Your task to perform on an android device: Turn off the flashlight Image 0: 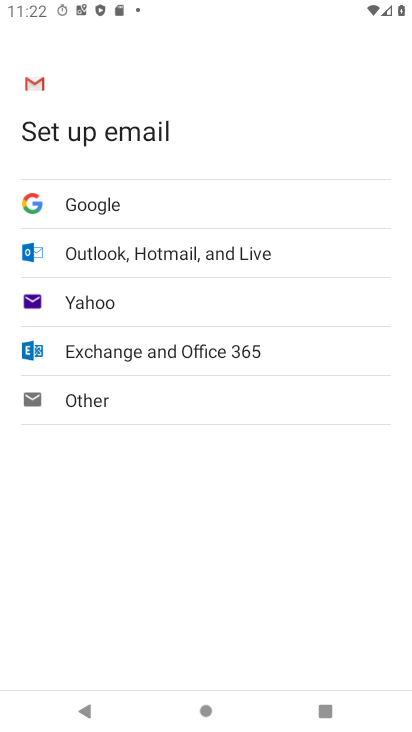
Step 0: press home button
Your task to perform on an android device: Turn off the flashlight Image 1: 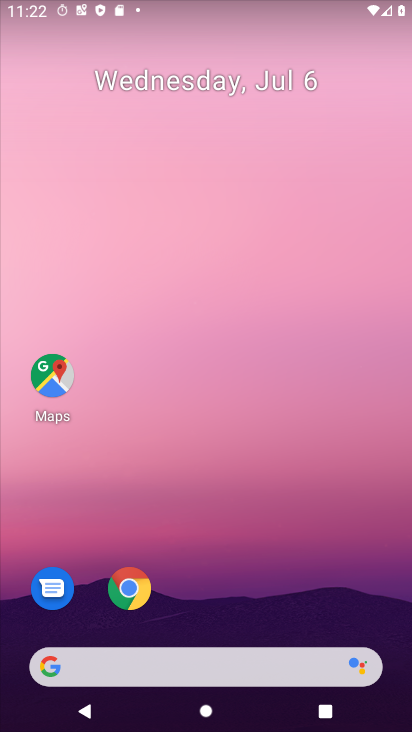
Step 1: drag from (237, 699) to (177, 104)
Your task to perform on an android device: Turn off the flashlight Image 2: 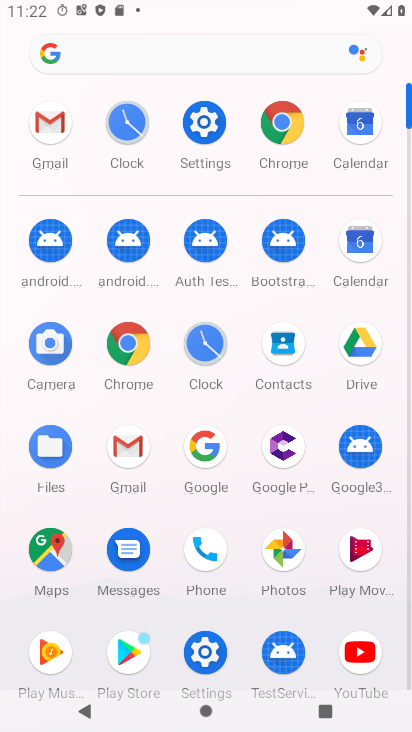
Step 2: click (198, 125)
Your task to perform on an android device: Turn off the flashlight Image 3: 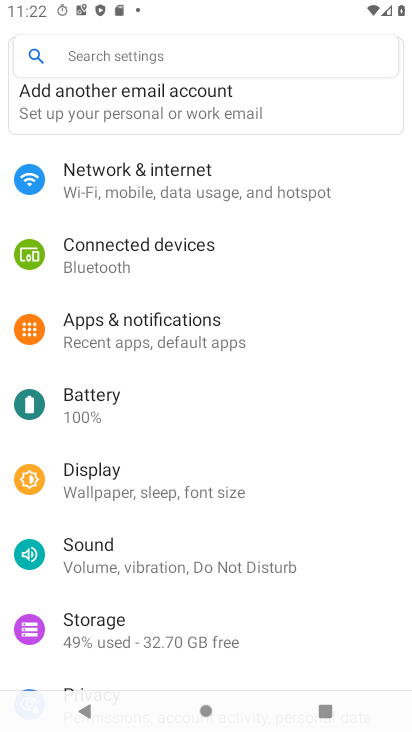
Step 3: drag from (180, 668) to (172, 165)
Your task to perform on an android device: Turn off the flashlight Image 4: 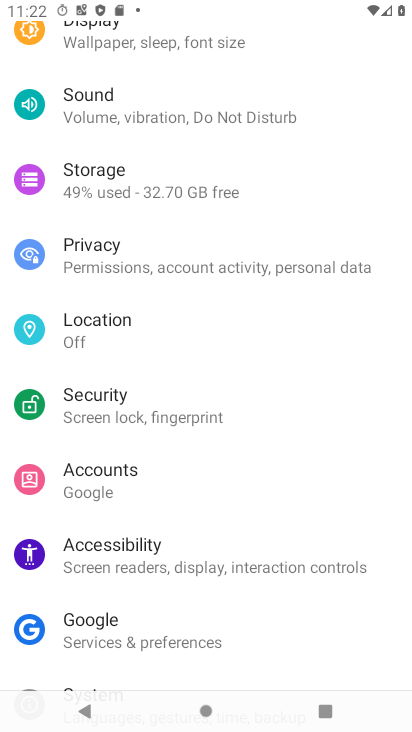
Step 4: drag from (229, 658) to (225, 532)
Your task to perform on an android device: Turn off the flashlight Image 5: 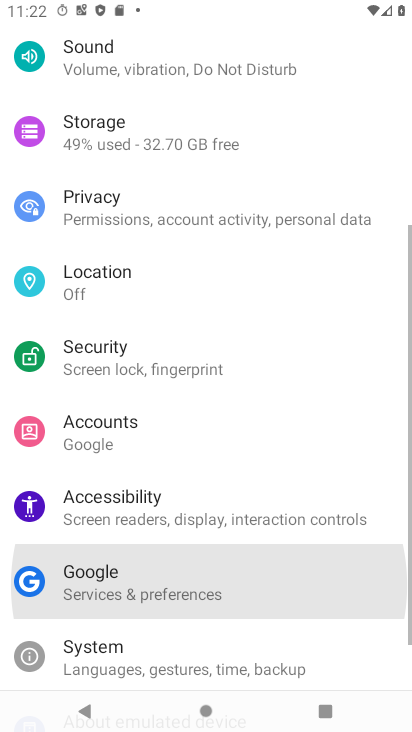
Step 5: click (218, 187)
Your task to perform on an android device: Turn off the flashlight Image 6: 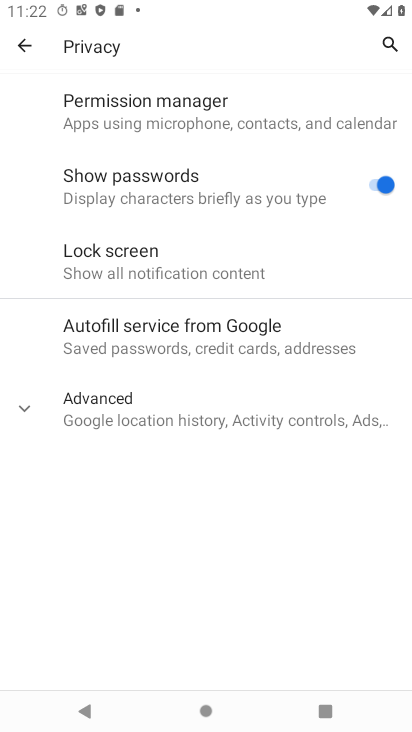
Step 6: click (22, 41)
Your task to perform on an android device: Turn off the flashlight Image 7: 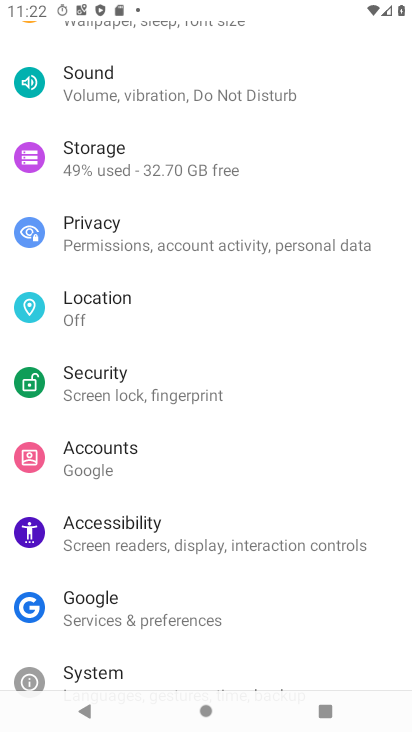
Step 7: click (279, 656)
Your task to perform on an android device: Turn off the flashlight Image 8: 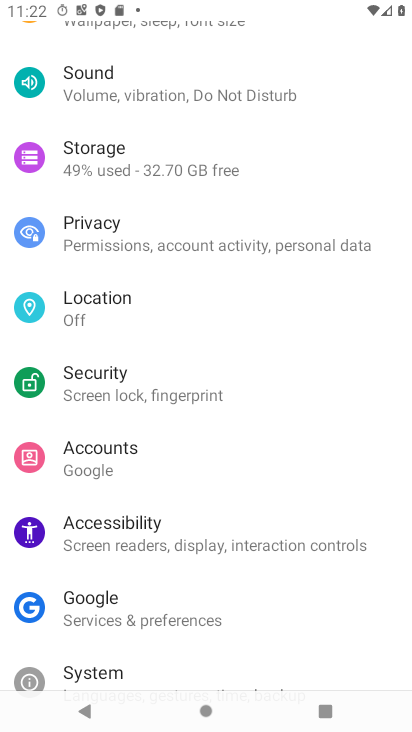
Step 8: click (244, 255)
Your task to perform on an android device: Turn off the flashlight Image 9: 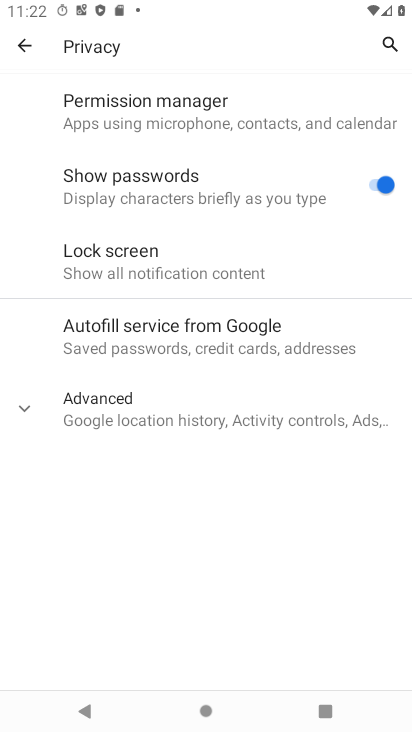
Step 9: click (23, 46)
Your task to perform on an android device: Turn off the flashlight Image 10: 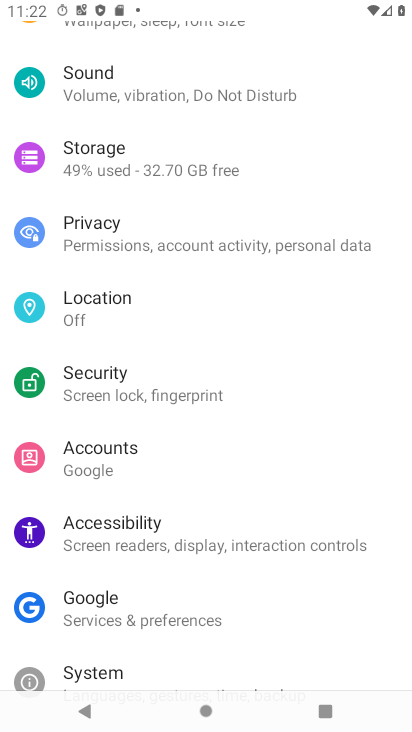
Step 10: task complete